Your task to perform on an android device: Go to Google Image 0: 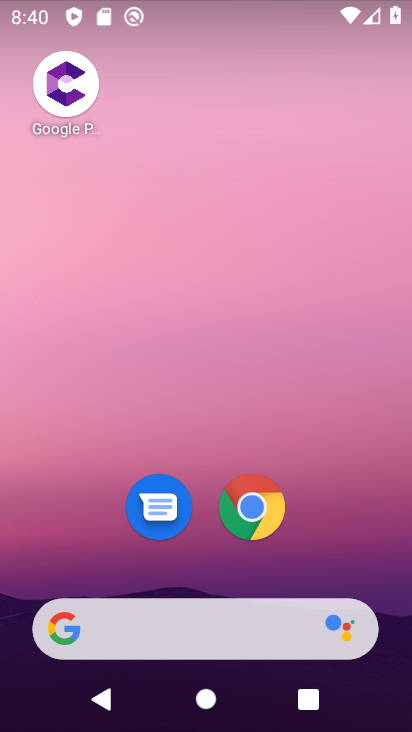
Step 0: drag from (316, 552) to (292, 26)
Your task to perform on an android device: Go to Google Image 1: 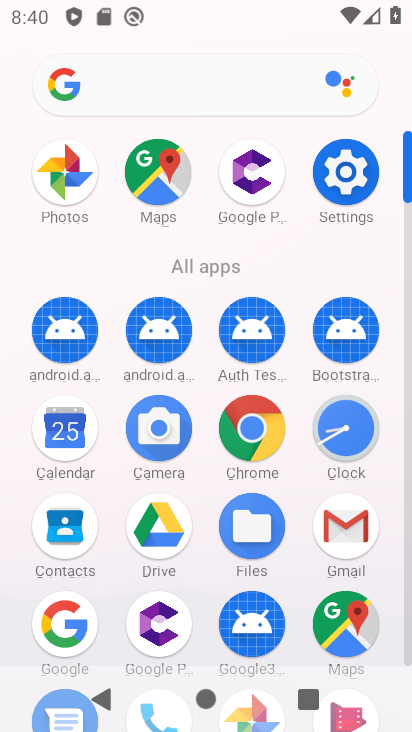
Step 1: click (72, 627)
Your task to perform on an android device: Go to Google Image 2: 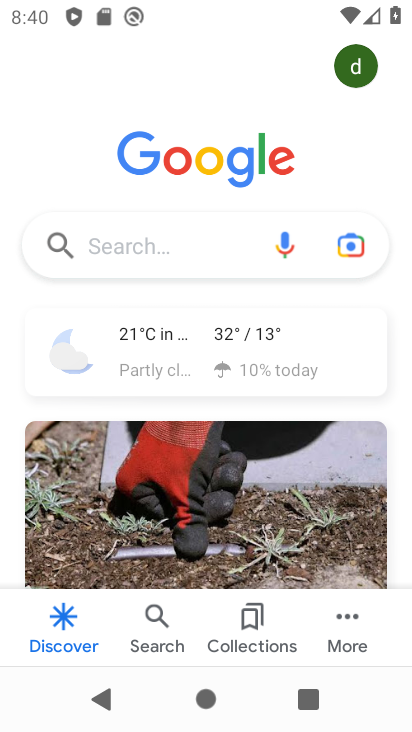
Step 2: task complete